Your task to perform on an android device: set an alarm Image 0: 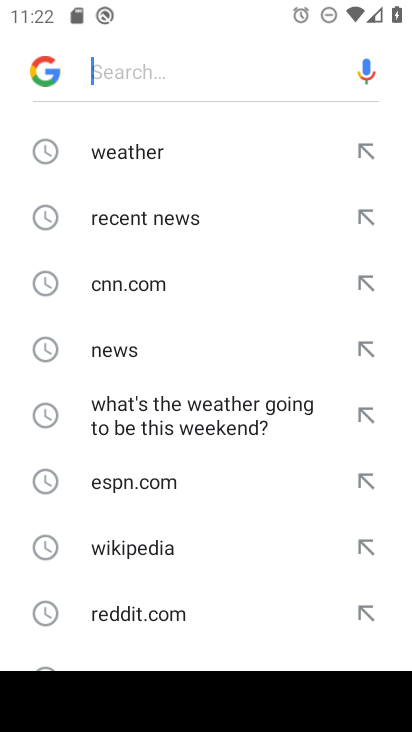
Step 0: press home button
Your task to perform on an android device: set an alarm Image 1: 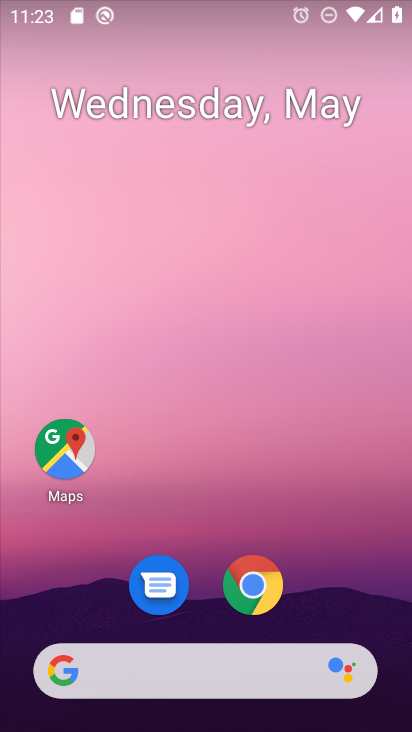
Step 1: drag from (293, 498) to (272, 84)
Your task to perform on an android device: set an alarm Image 2: 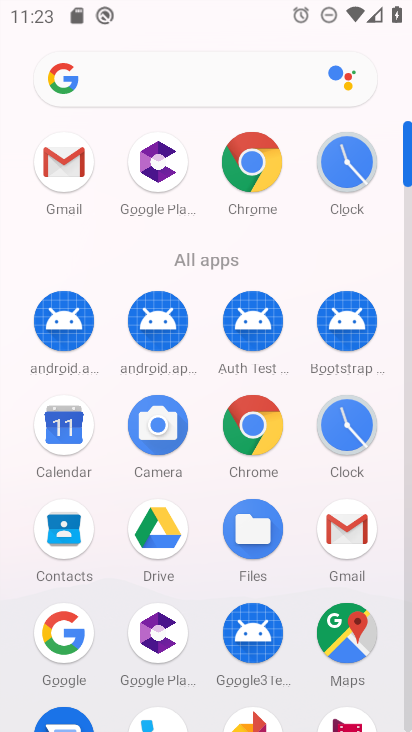
Step 2: click (341, 159)
Your task to perform on an android device: set an alarm Image 3: 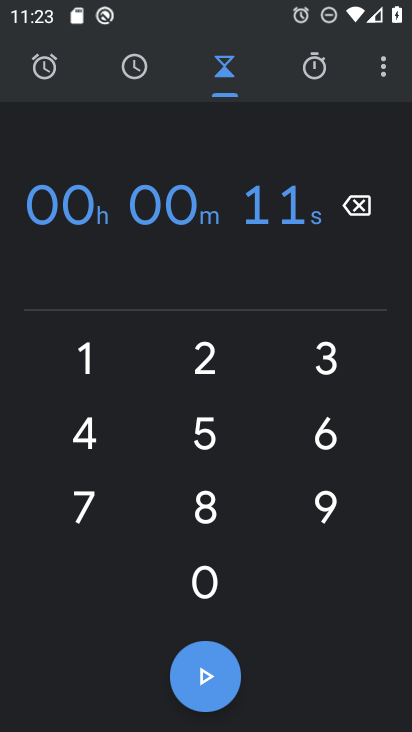
Step 3: click (37, 58)
Your task to perform on an android device: set an alarm Image 4: 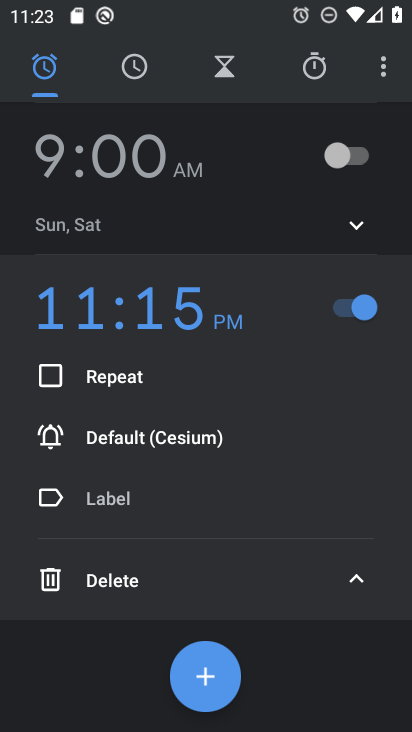
Step 4: click (199, 682)
Your task to perform on an android device: set an alarm Image 5: 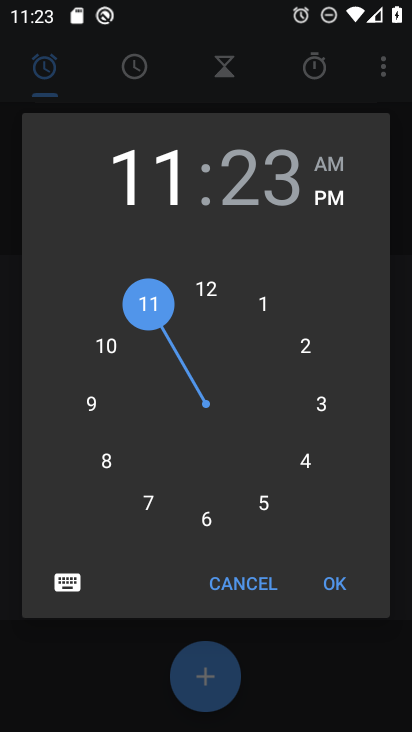
Step 5: click (253, 178)
Your task to perform on an android device: set an alarm Image 6: 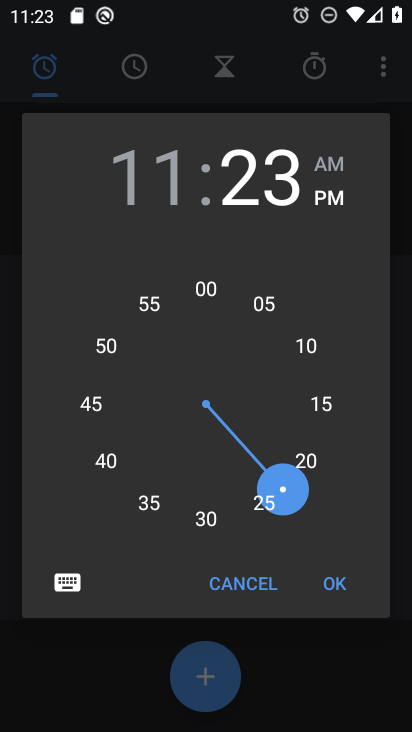
Step 6: click (207, 513)
Your task to perform on an android device: set an alarm Image 7: 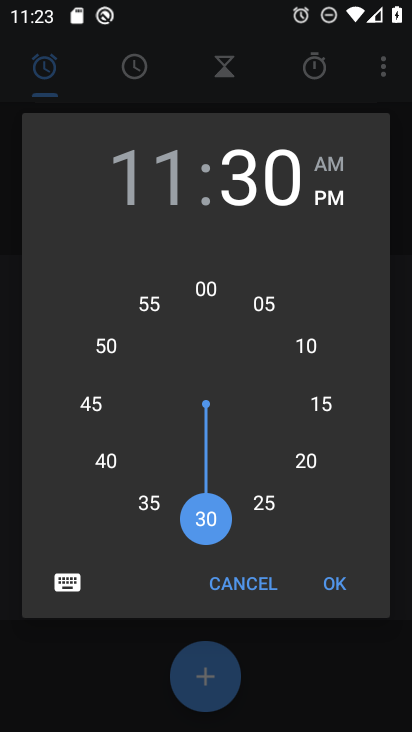
Step 7: click (325, 583)
Your task to perform on an android device: set an alarm Image 8: 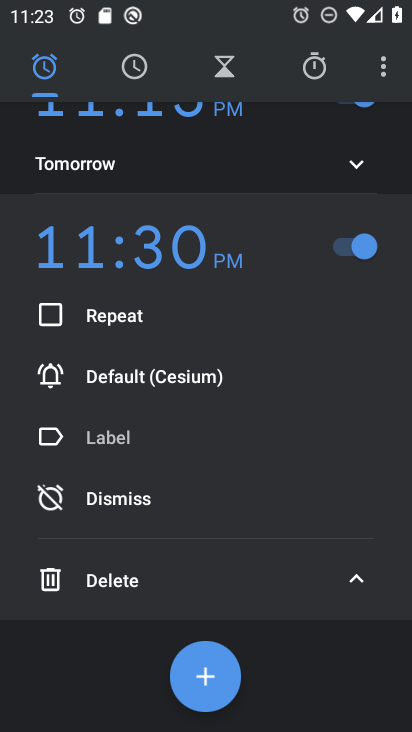
Step 8: task complete